Your task to perform on an android device: turn on translation in the chrome app Image 0: 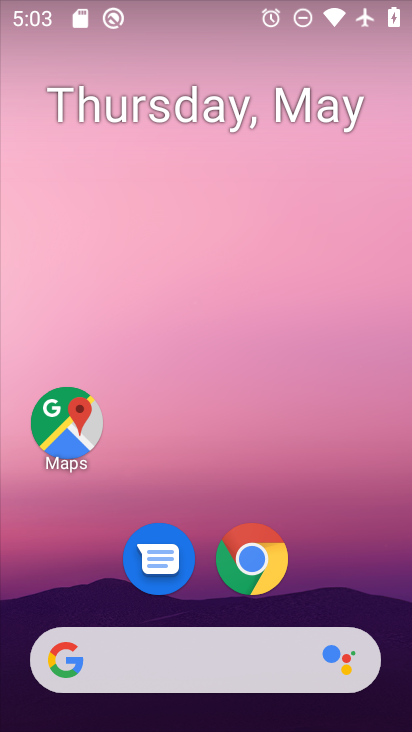
Step 0: click (272, 570)
Your task to perform on an android device: turn on translation in the chrome app Image 1: 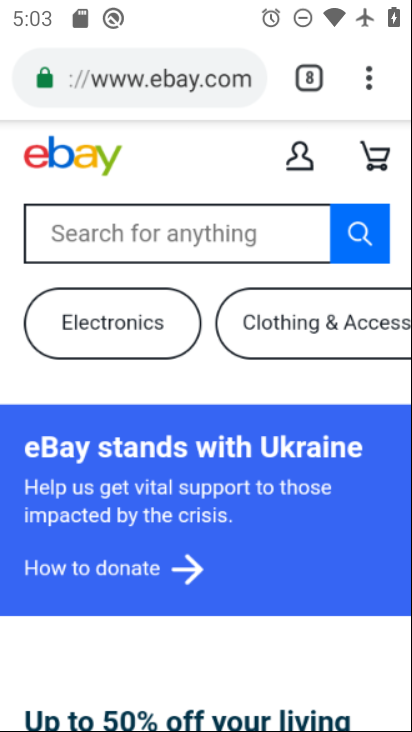
Step 1: click (369, 64)
Your task to perform on an android device: turn on translation in the chrome app Image 2: 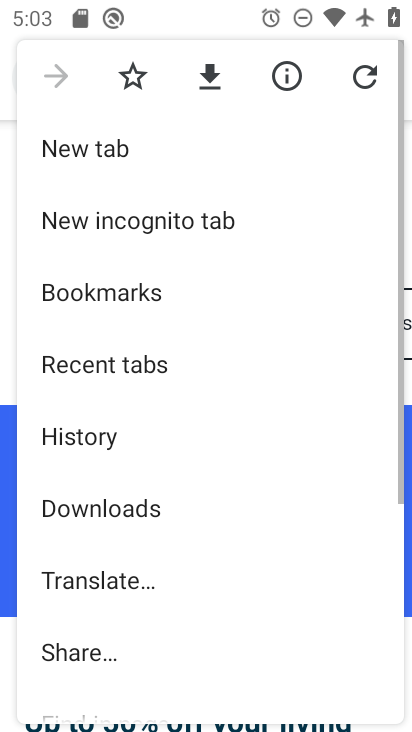
Step 2: drag from (263, 577) to (209, 39)
Your task to perform on an android device: turn on translation in the chrome app Image 3: 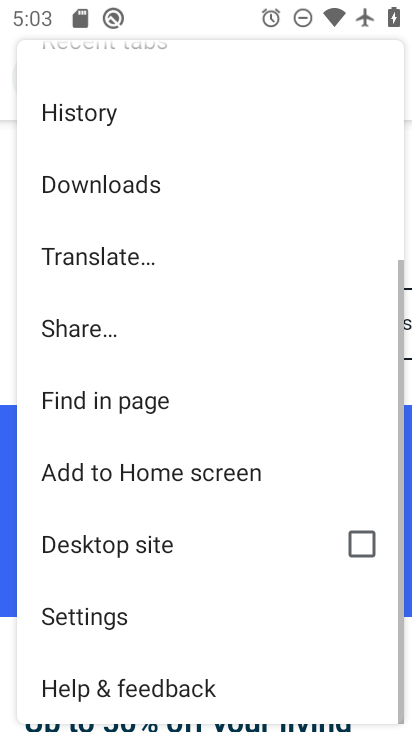
Step 3: click (182, 600)
Your task to perform on an android device: turn on translation in the chrome app Image 4: 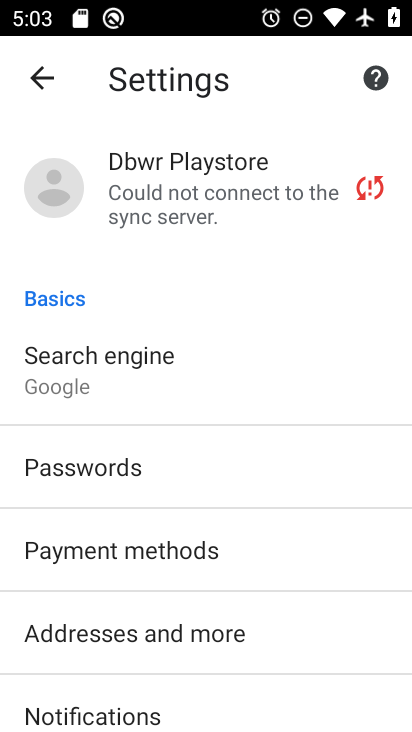
Step 4: drag from (253, 619) to (171, 98)
Your task to perform on an android device: turn on translation in the chrome app Image 5: 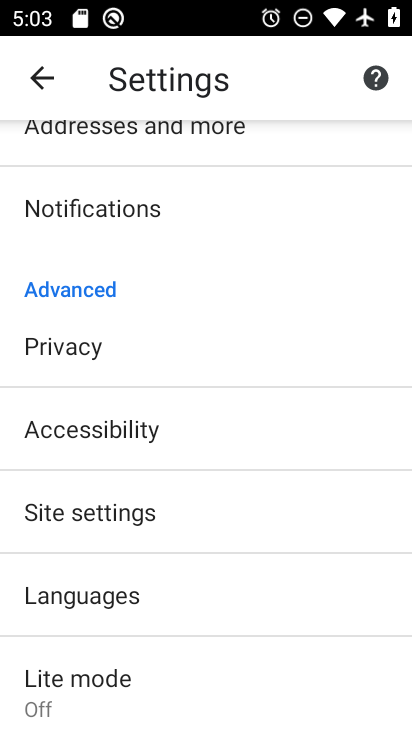
Step 5: click (137, 610)
Your task to perform on an android device: turn on translation in the chrome app Image 6: 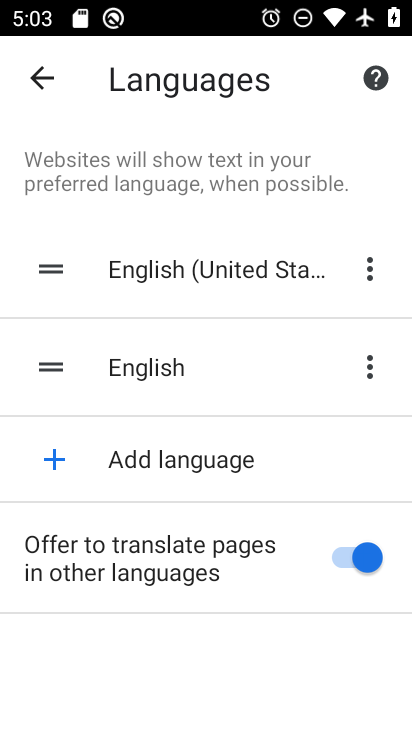
Step 6: task complete